Your task to perform on an android device: Open CNN.com Image 0: 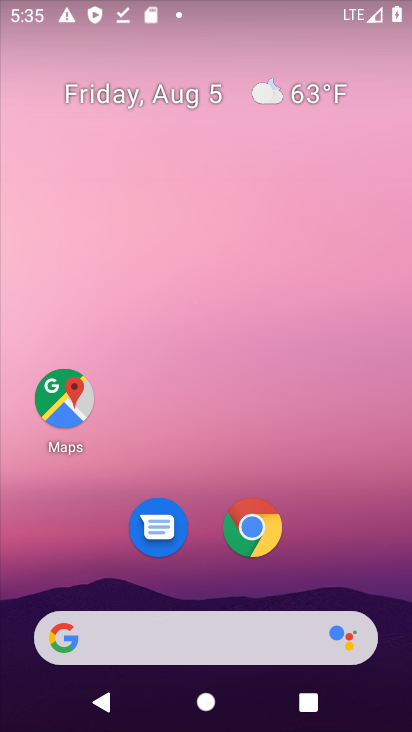
Step 0: click (288, 113)
Your task to perform on an android device: Open CNN.com Image 1: 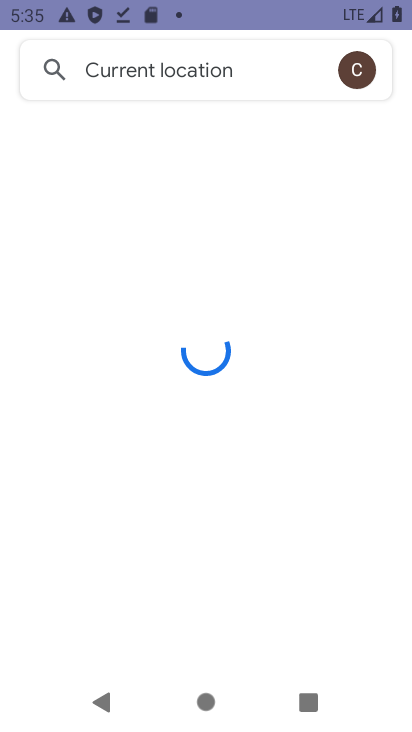
Step 1: drag from (223, 569) to (314, 13)
Your task to perform on an android device: Open CNN.com Image 2: 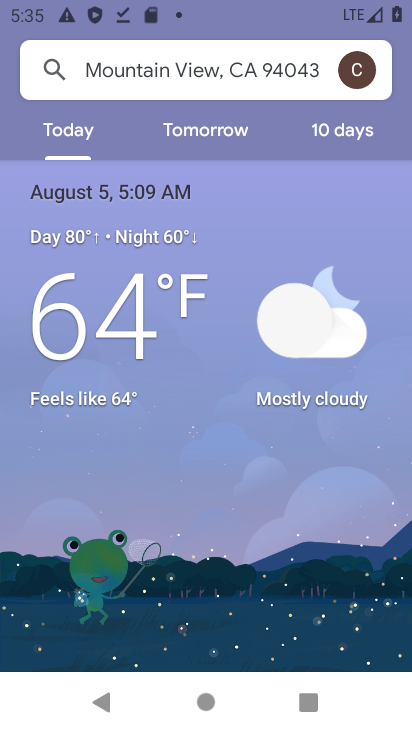
Step 2: press home button
Your task to perform on an android device: Open CNN.com Image 3: 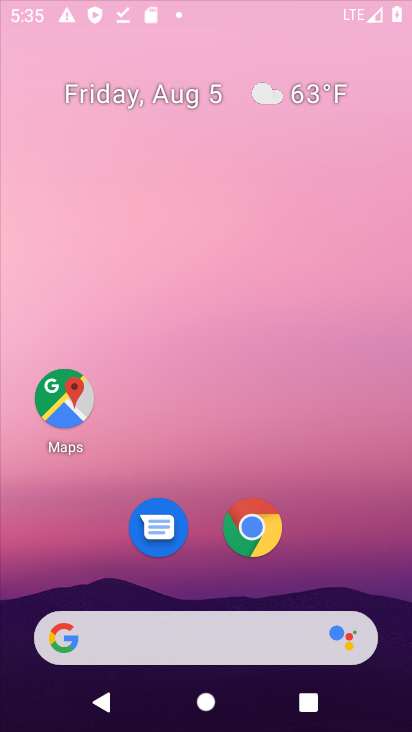
Step 3: drag from (179, 606) to (256, 28)
Your task to perform on an android device: Open CNN.com Image 4: 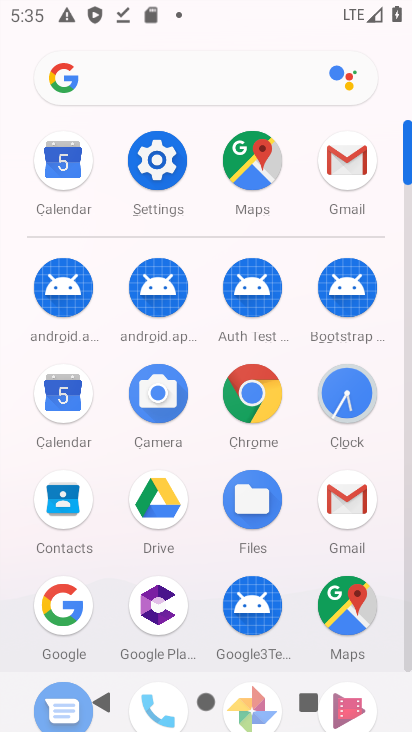
Step 4: click (131, 82)
Your task to perform on an android device: Open CNN.com Image 5: 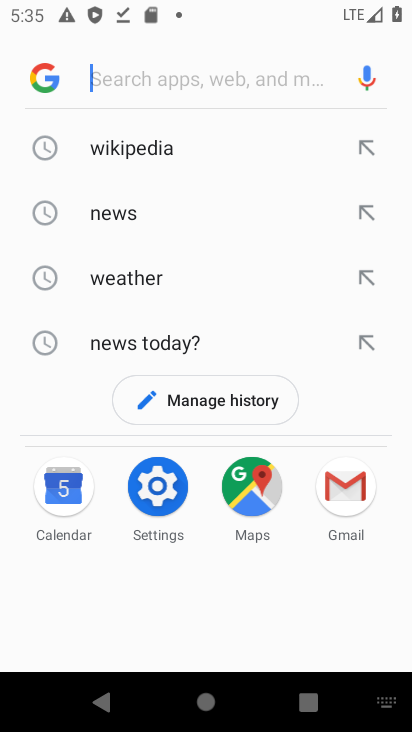
Step 5: type "CNN.com"
Your task to perform on an android device: Open CNN.com Image 6: 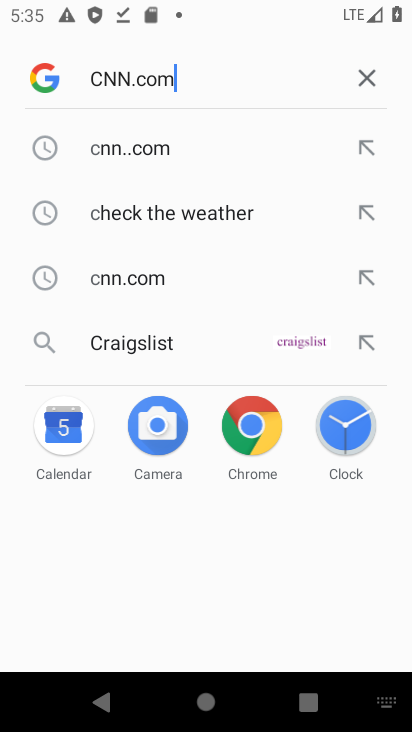
Step 6: type ""
Your task to perform on an android device: Open CNN.com Image 7: 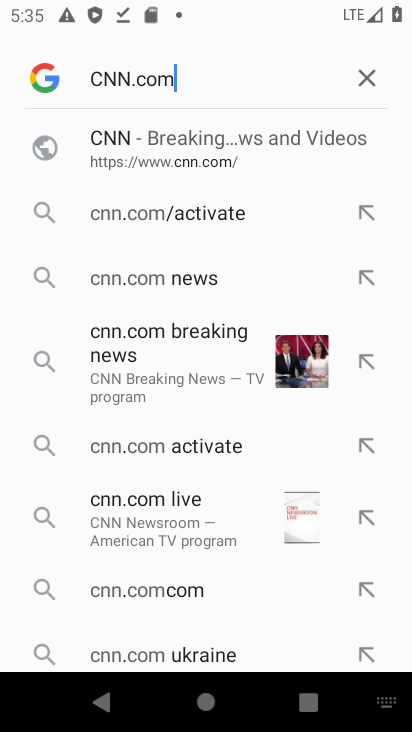
Step 7: click (93, 124)
Your task to perform on an android device: Open CNN.com Image 8: 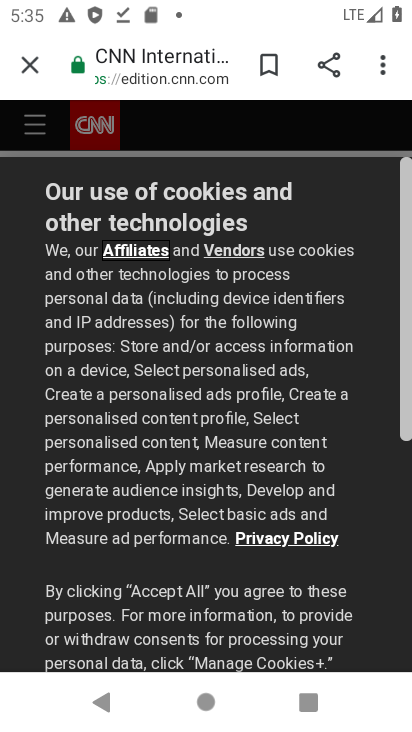
Step 8: task complete